Your task to perform on an android device: turn on location history Image 0: 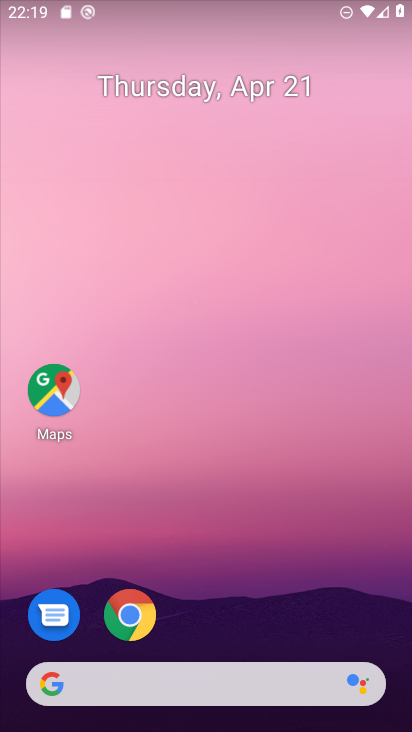
Step 0: drag from (223, 645) to (254, 20)
Your task to perform on an android device: turn on location history Image 1: 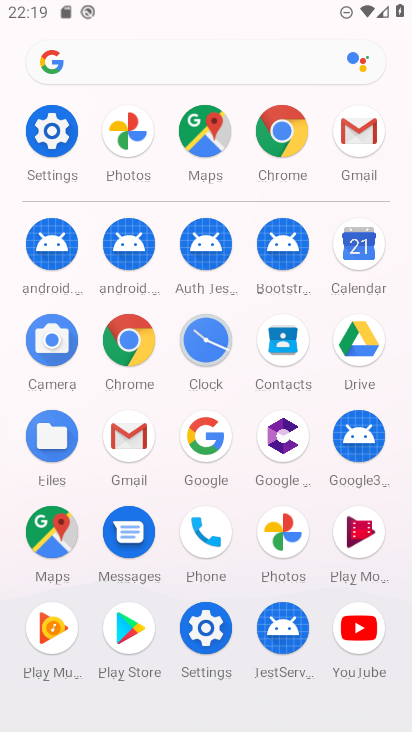
Step 1: drag from (168, 608) to (142, 197)
Your task to perform on an android device: turn on location history Image 2: 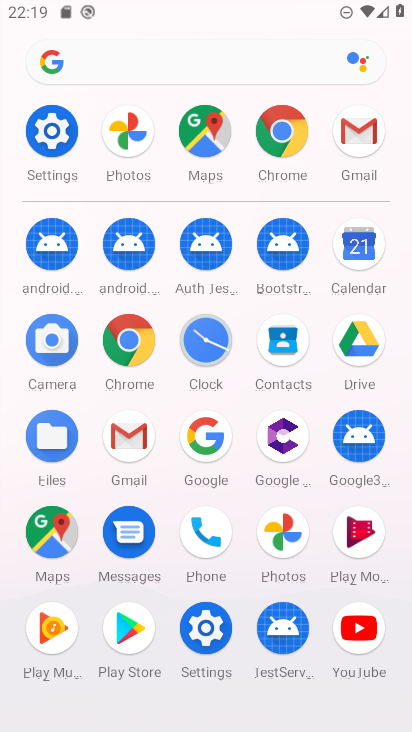
Step 2: click (200, 625)
Your task to perform on an android device: turn on location history Image 3: 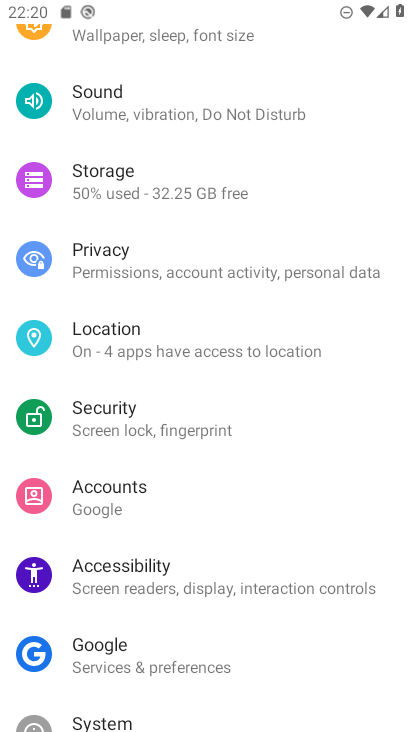
Step 3: drag from (181, 609) to (255, 229)
Your task to perform on an android device: turn on location history Image 4: 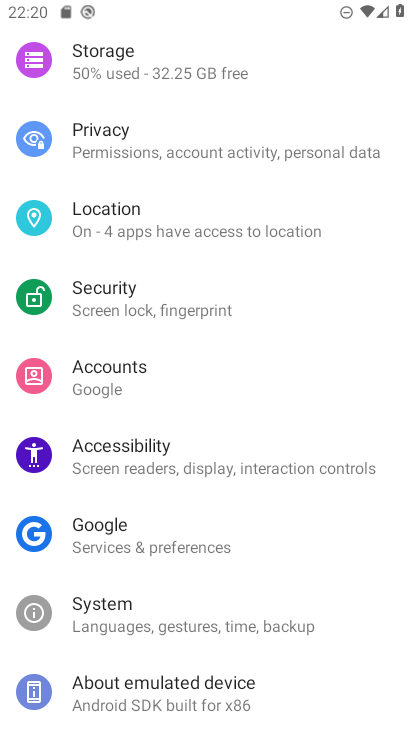
Step 4: click (163, 209)
Your task to perform on an android device: turn on location history Image 5: 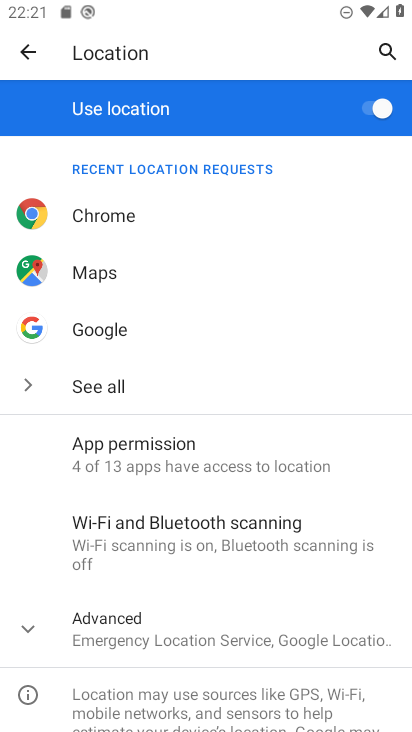
Step 5: drag from (216, 601) to (273, 288)
Your task to perform on an android device: turn on location history Image 6: 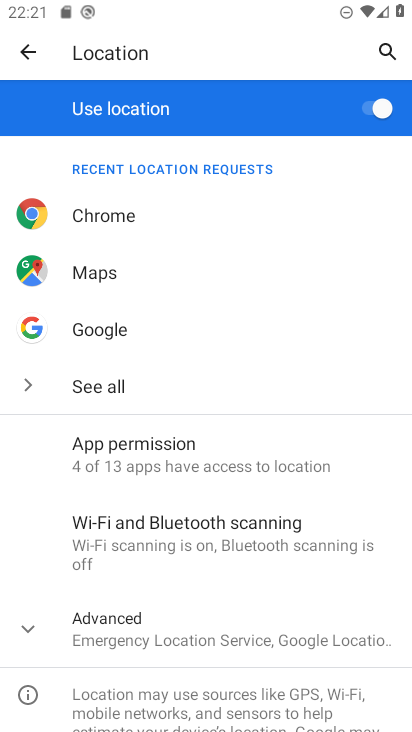
Step 6: drag from (207, 575) to (293, 289)
Your task to perform on an android device: turn on location history Image 7: 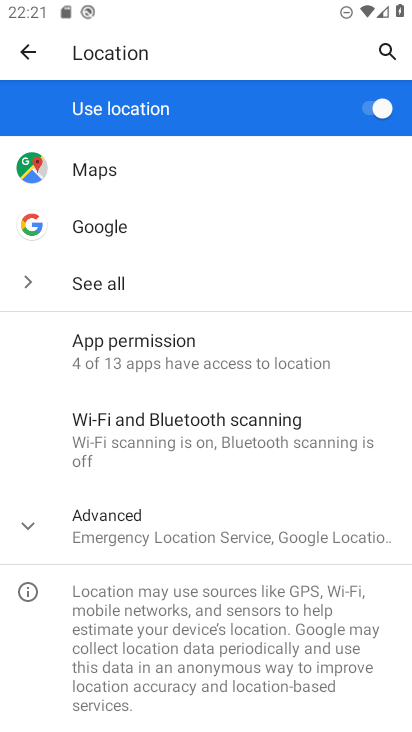
Step 7: drag from (201, 397) to (223, 347)
Your task to perform on an android device: turn on location history Image 8: 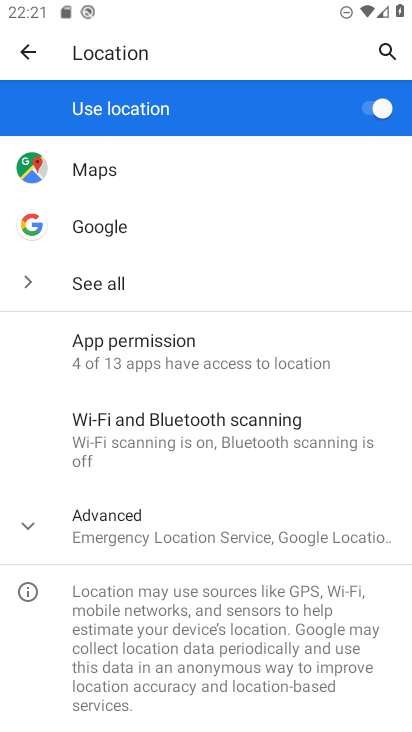
Step 8: drag from (185, 585) to (234, 162)
Your task to perform on an android device: turn on location history Image 9: 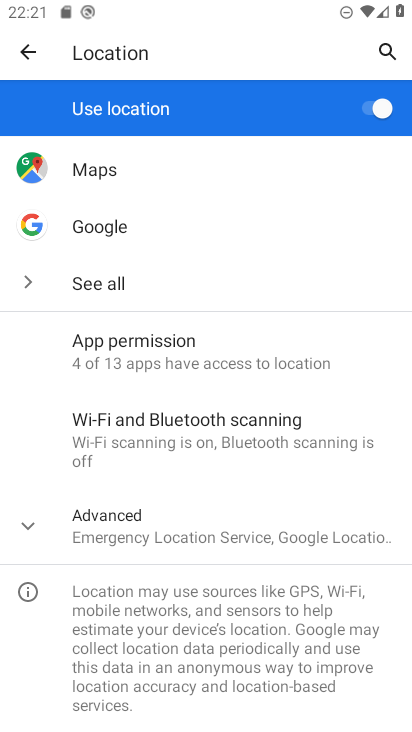
Step 9: drag from (172, 218) to (198, 538)
Your task to perform on an android device: turn on location history Image 10: 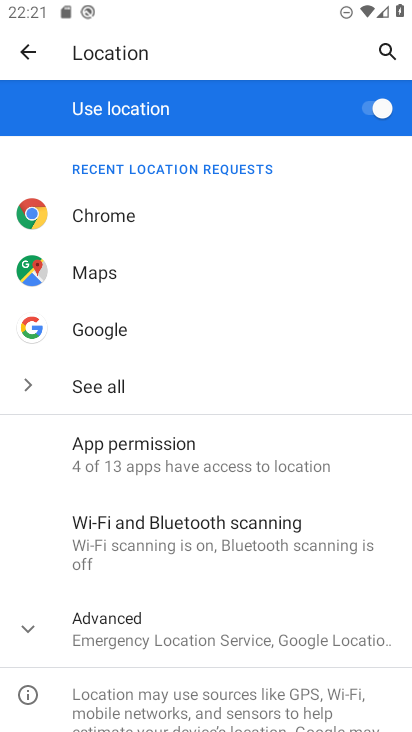
Step 10: drag from (141, 609) to (232, 229)
Your task to perform on an android device: turn on location history Image 11: 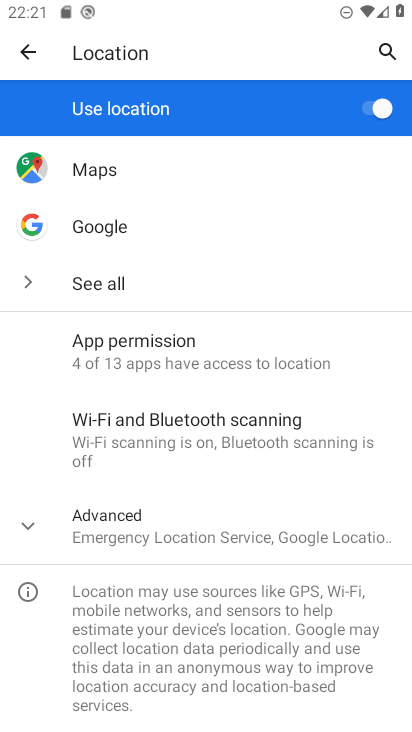
Step 11: click (194, 522)
Your task to perform on an android device: turn on location history Image 12: 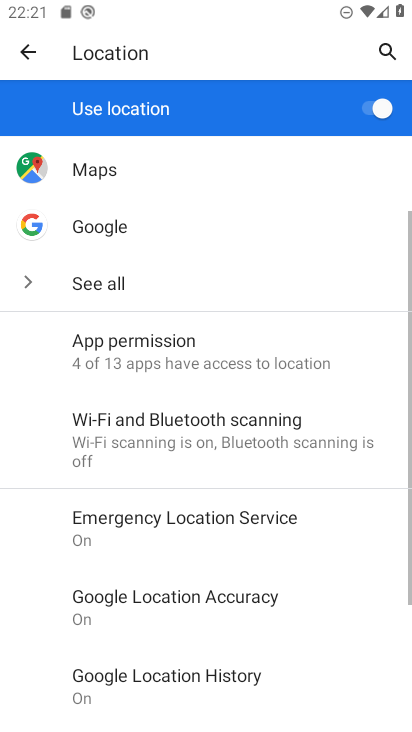
Step 12: drag from (209, 600) to (247, 313)
Your task to perform on an android device: turn on location history Image 13: 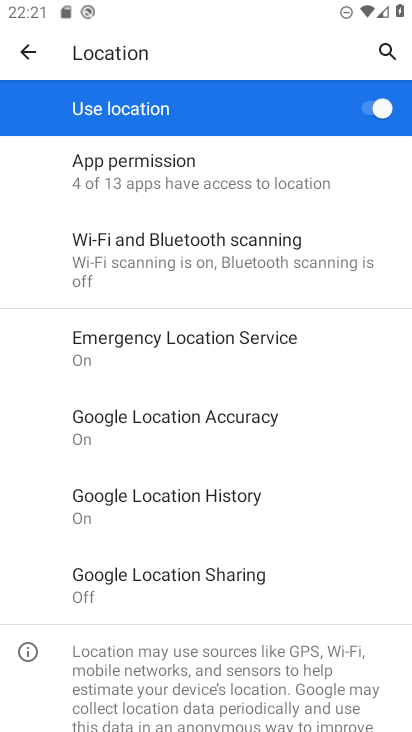
Step 13: click (238, 497)
Your task to perform on an android device: turn on location history Image 14: 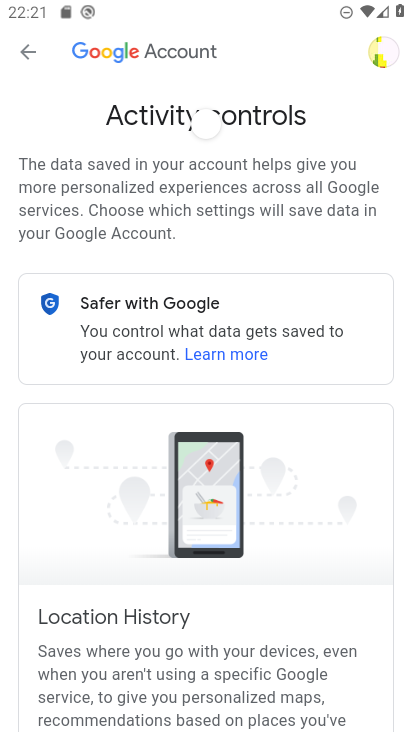
Step 14: task complete